Your task to perform on an android device: delete the emails in spam in the gmail app Image 0: 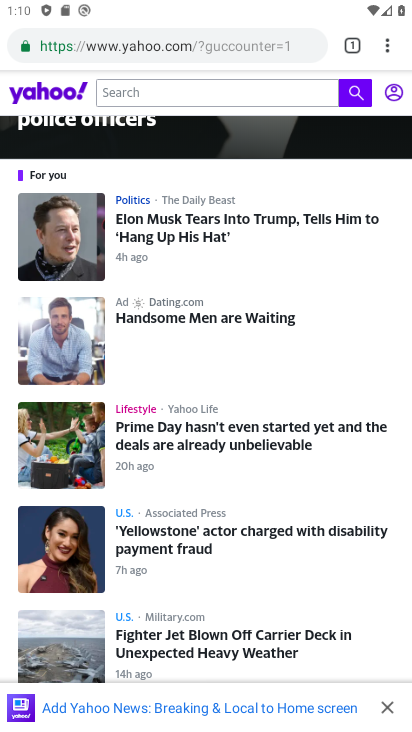
Step 0: press home button
Your task to perform on an android device: delete the emails in spam in the gmail app Image 1: 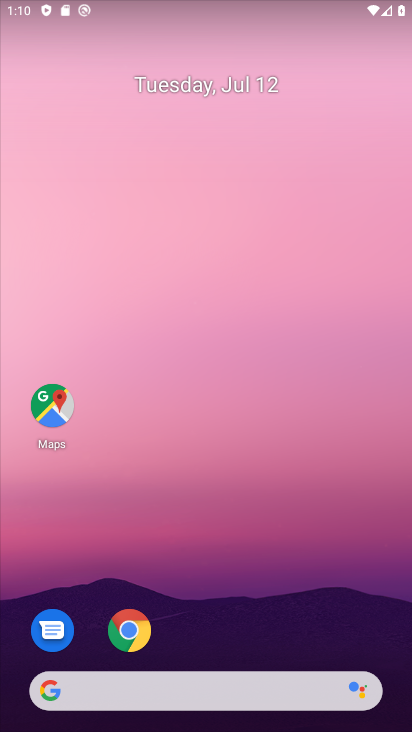
Step 1: drag from (216, 666) to (150, 244)
Your task to perform on an android device: delete the emails in spam in the gmail app Image 2: 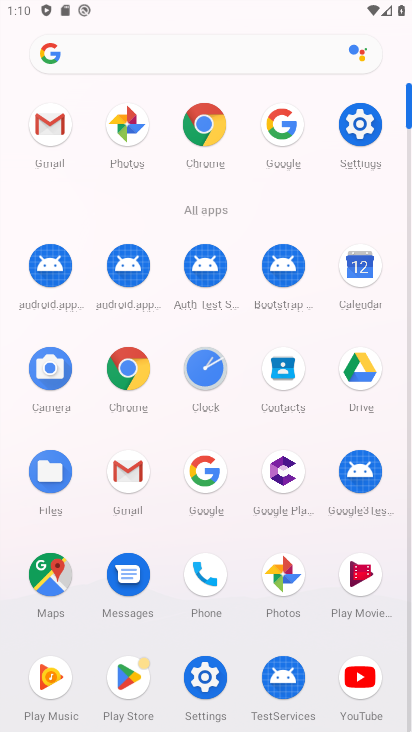
Step 2: click (119, 487)
Your task to perform on an android device: delete the emails in spam in the gmail app Image 3: 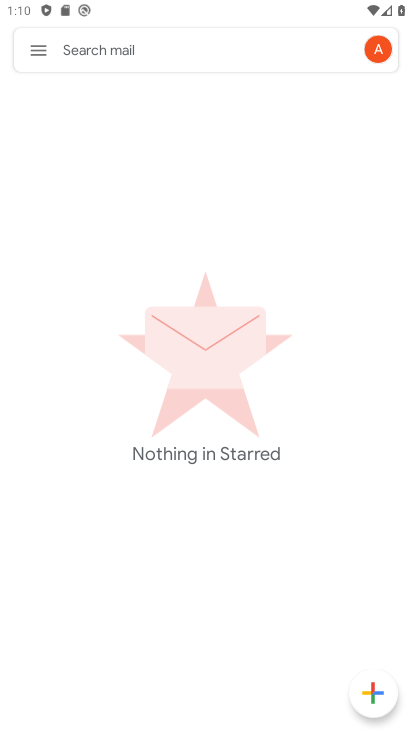
Step 3: click (28, 52)
Your task to perform on an android device: delete the emails in spam in the gmail app Image 4: 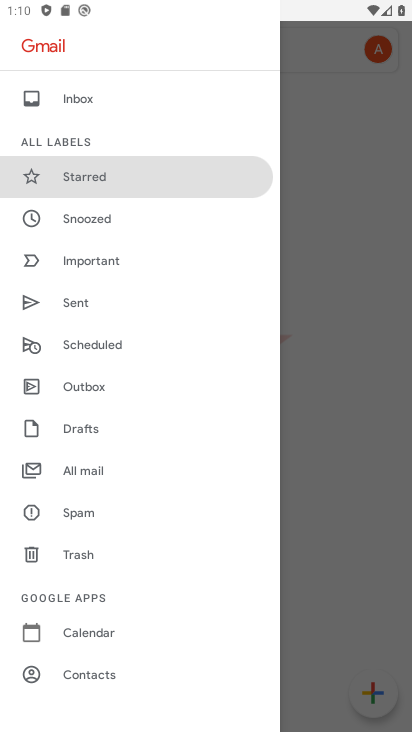
Step 4: click (107, 509)
Your task to perform on an android device: delete the emails in spam in the gmail app Image 5: 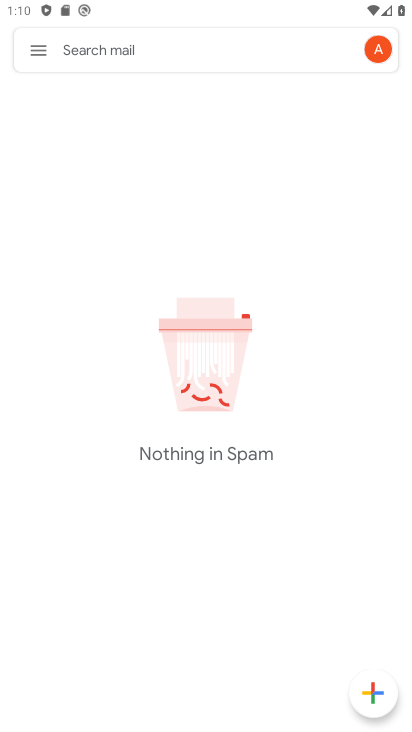
Step 5: task complete